Your task to perform on an android device: turn notification dots on Image 0: 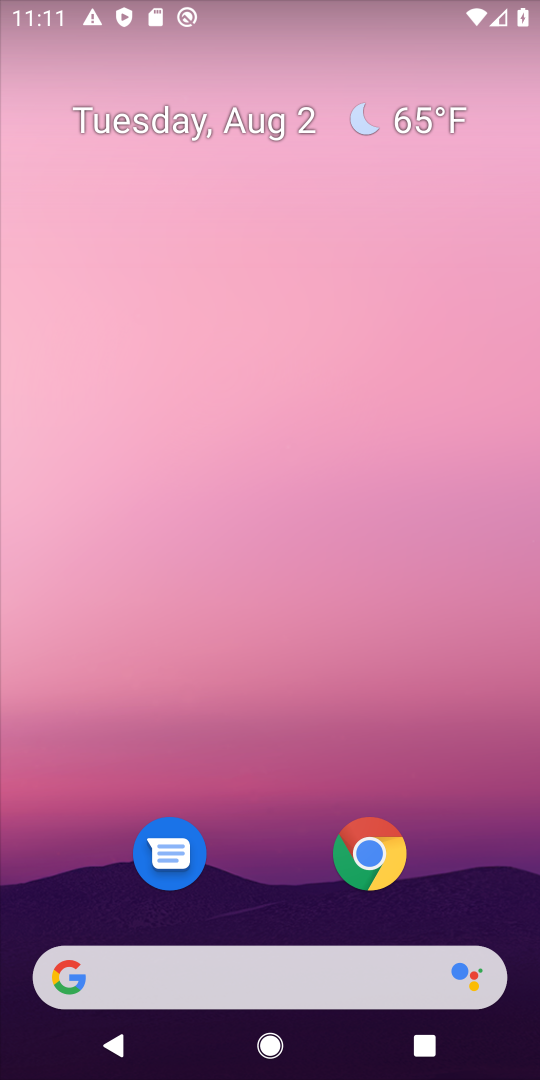
Step 0: click (309, 113)
Your task to perform on an android device: turn notification dots on Image 1: 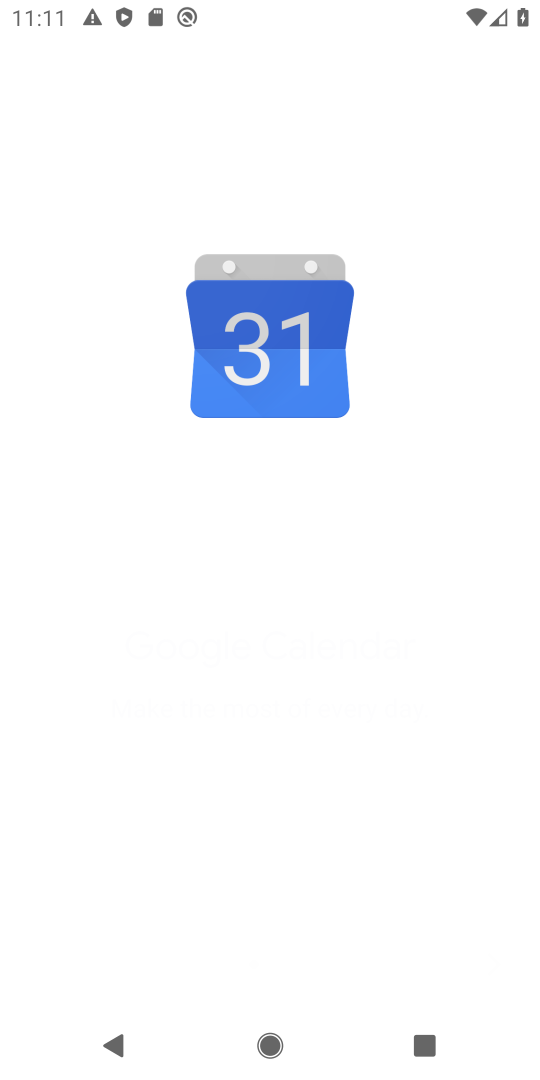
Step 1: drag from (267, 900) to (342, 72)
Your task to perform on an android device: turn notification dots on Image 2: 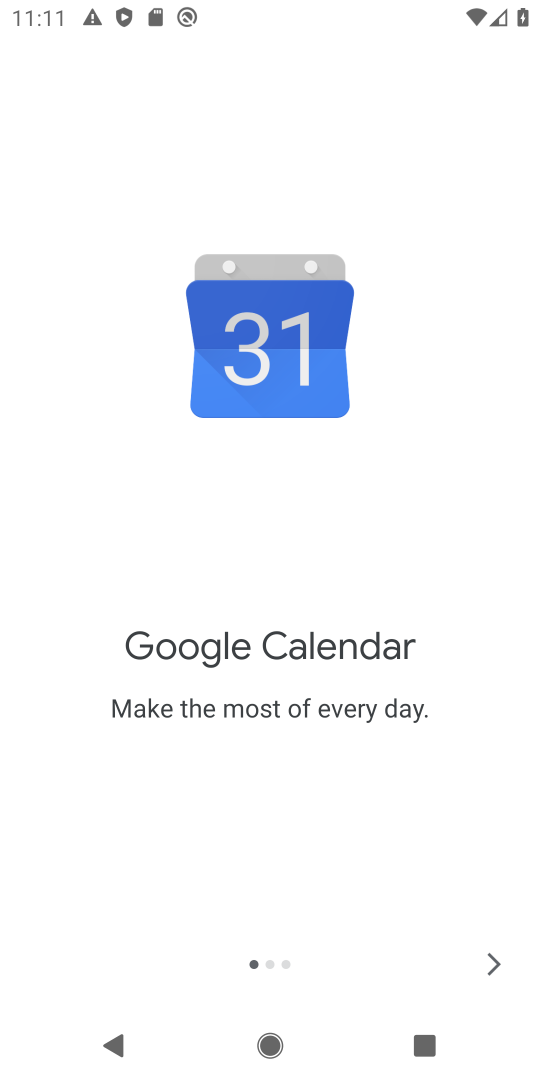
Step 2: press home button
Your task to perform on an android device: turn notification dots on Image 3: 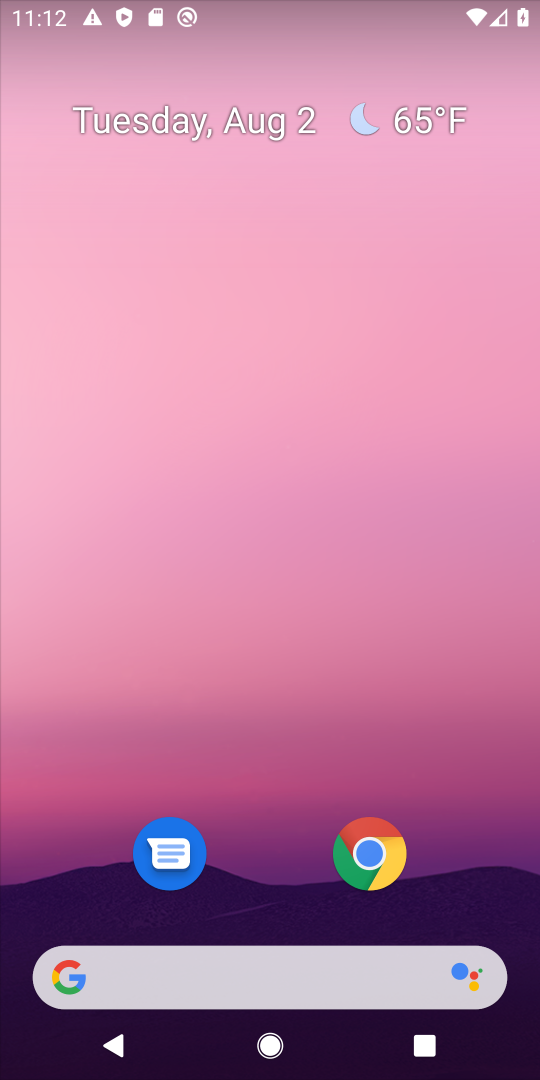
Step 3: drag from (276, 865) to (276, 560)
Your task to perform on an android device: turn notification dots on Image 4: 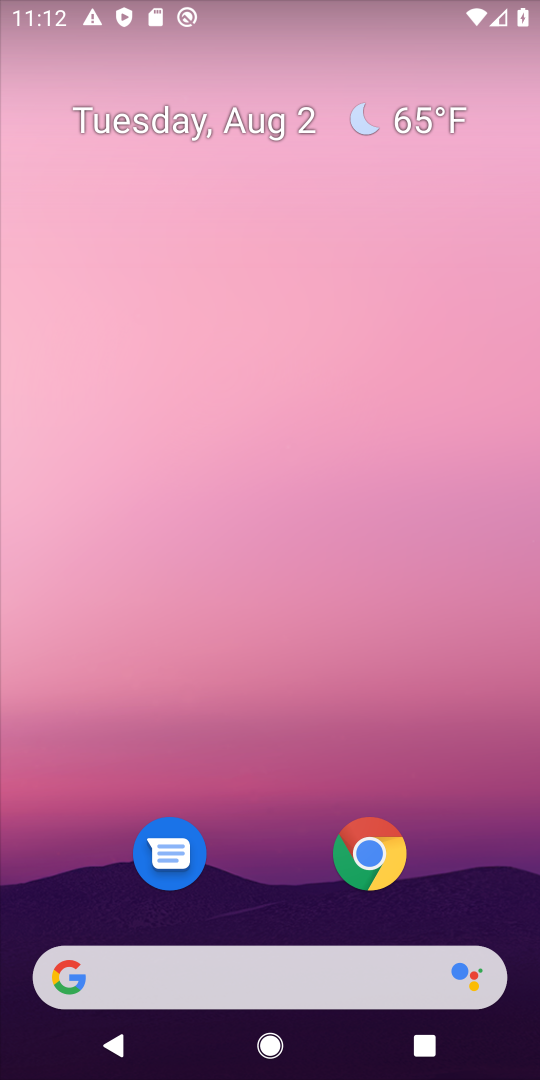
Step 4: drag from (279, 817) to (319, 202)
Your task to perform on an android device: turn notification dots on Image 5: 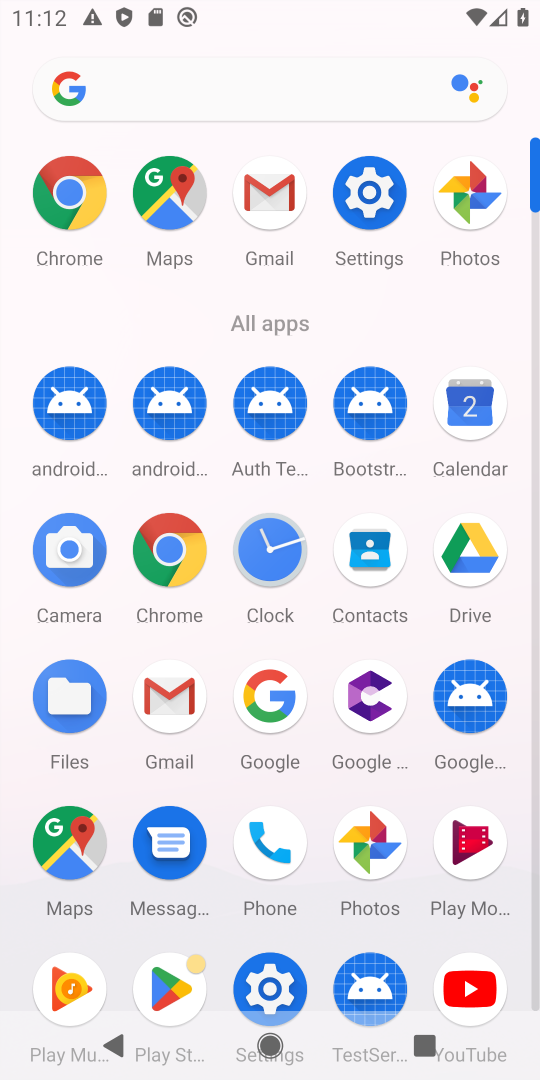
Step 5: click (266, 966)
Your task to perform on an android device: turn notification dots on Image 6: 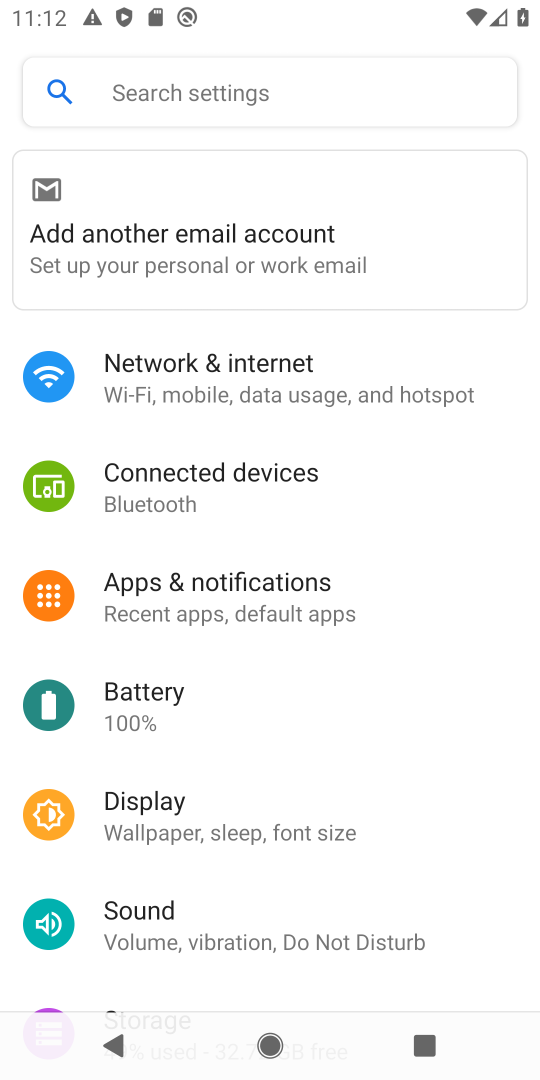
Step 6: click (177, 589)
Your task to perform on an android device: turn notification dots on Image 7: 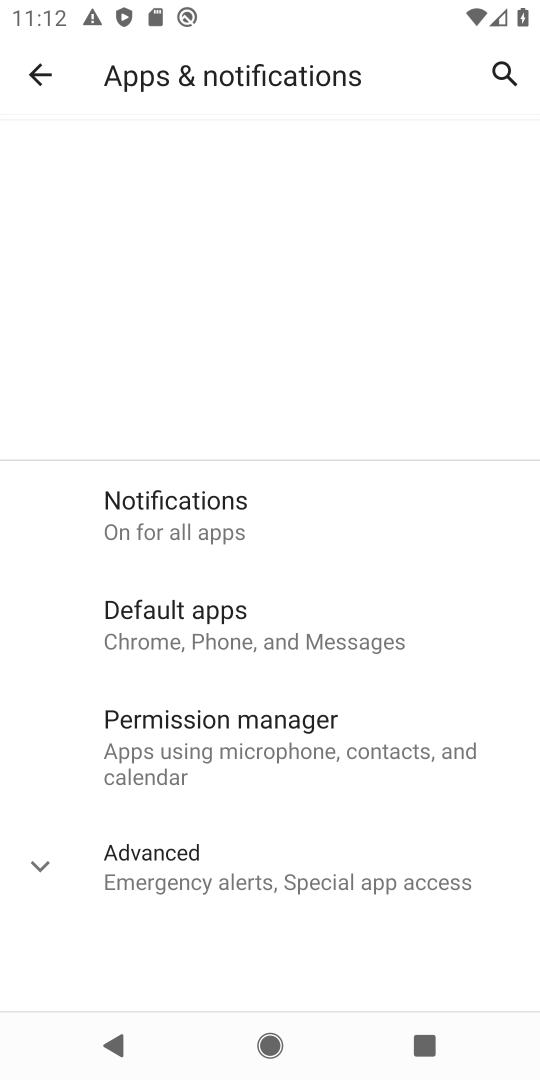
Step 7: click (166, 520)
Your task to perform on an android device: turn notification dots on Image 8: 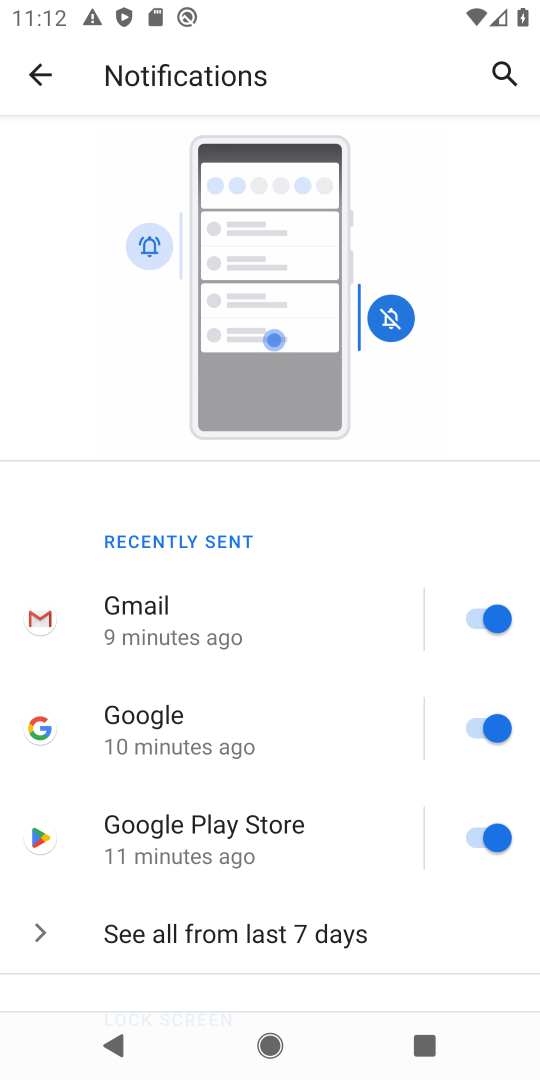
Step 8: drag from (232, 849) to (245, 136)
Your task to perform on an android device: turn notification dots on Image 9: 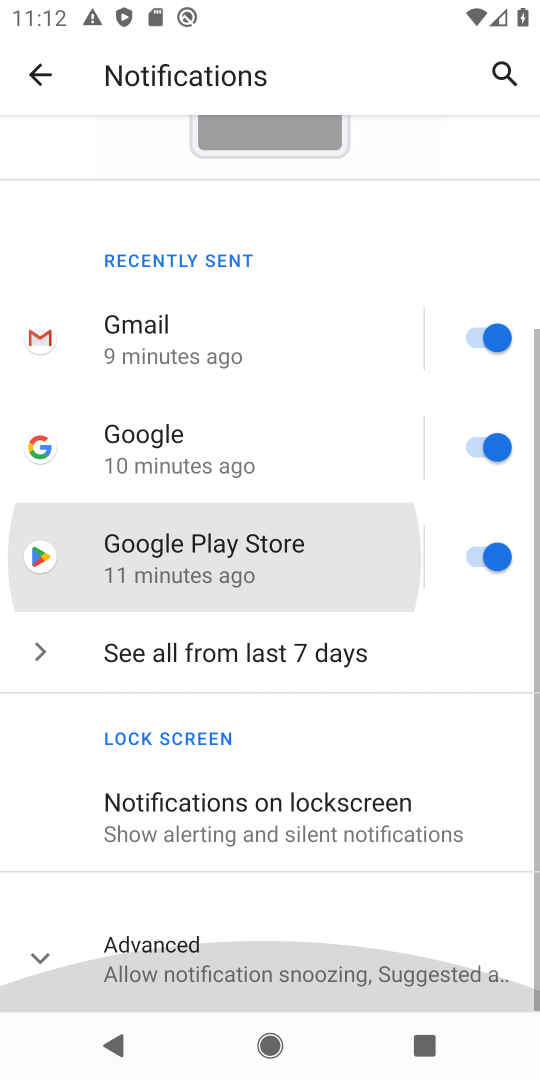
Step 9: drag from (249, 723) to (236, 288)
Your task to perform on an android device: turn notification dots on Image 10: 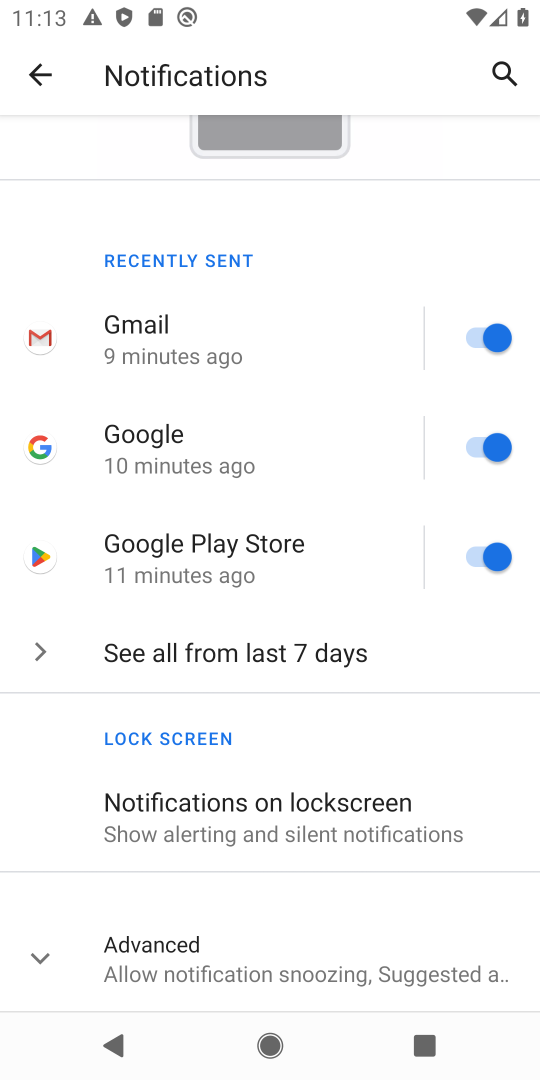
Step 10: click (187, 934)
Your task to perform on an android device: turn notification dots on Image 11: 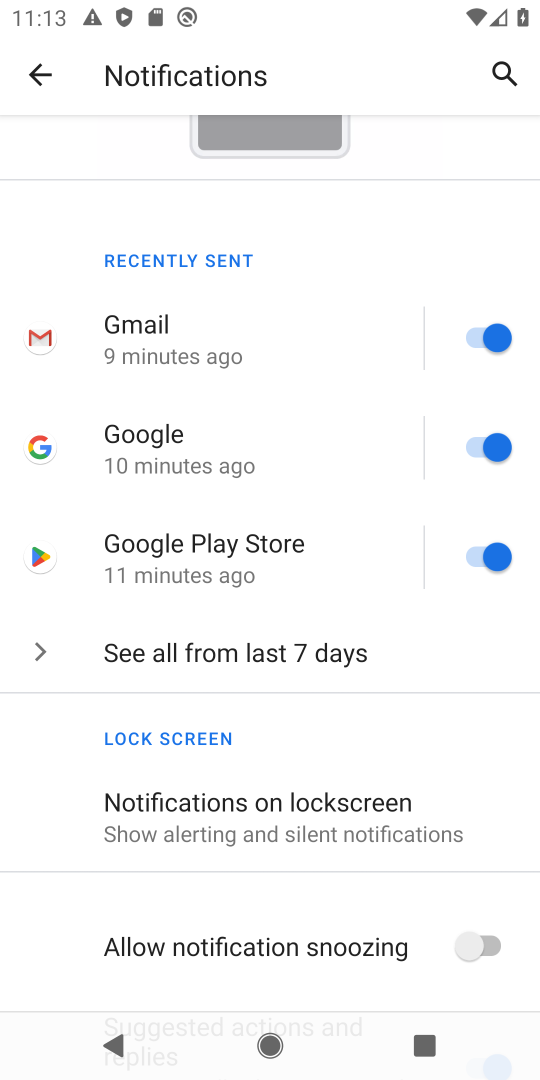
Step 11: task complete